Your task to perform on an android device: turn on sleep mode Image 0: 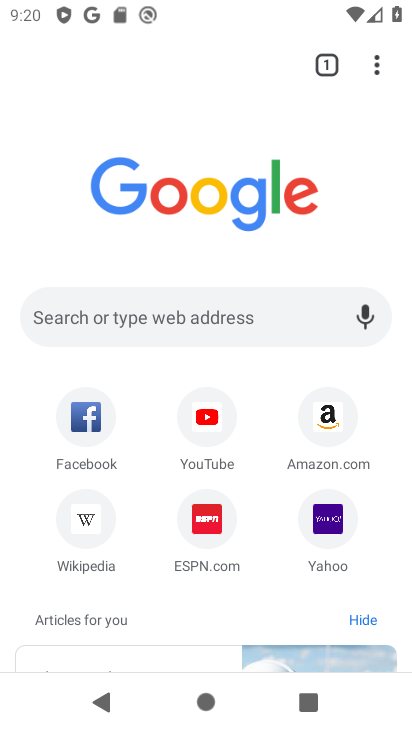
Step 0: press home button
Your task to perform on an android device: turn on sleep mode Image 1: 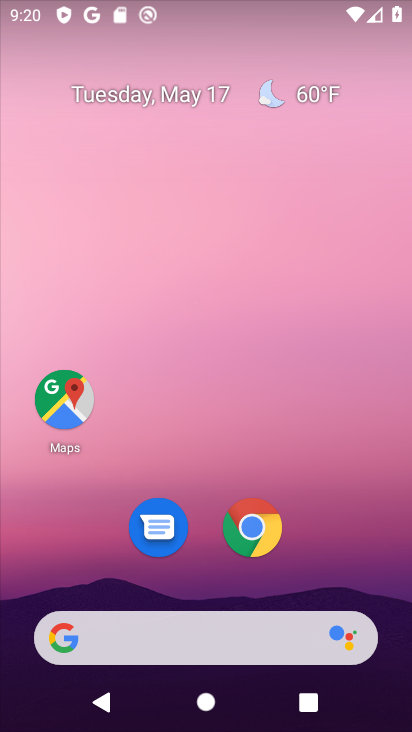
Step 1: drag from (185, 345) to (202, 12)
Your task to perform on an android device: turn on sleep mode Image 2: 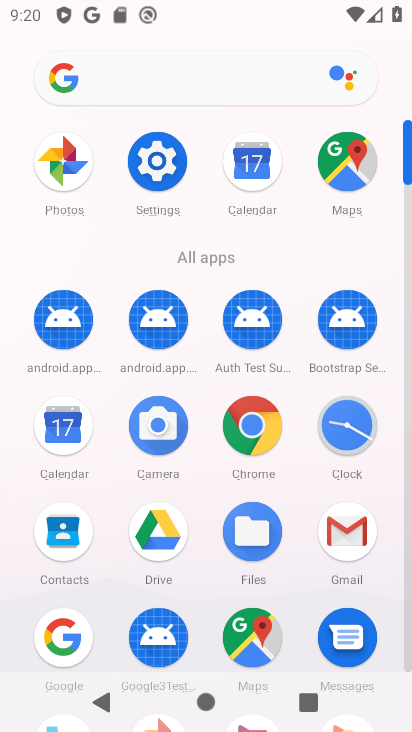
Step 2: click (154, 167)
Your task to perform on an android device: turn on sleep mode Image 3: 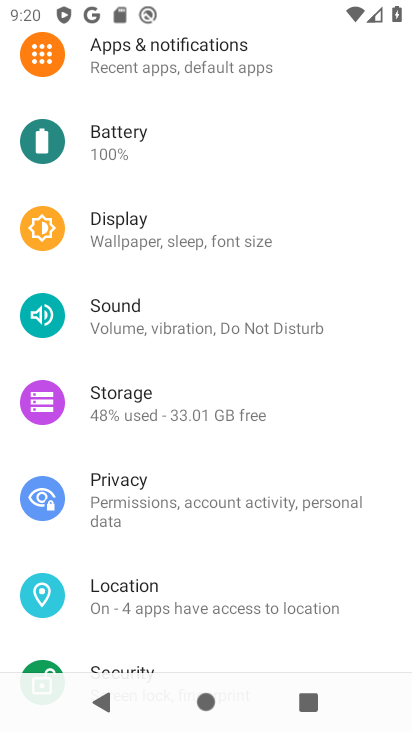
Step 3: click (158, 233)
Your task to perform on an android device: turn on sleep mode Image 4: 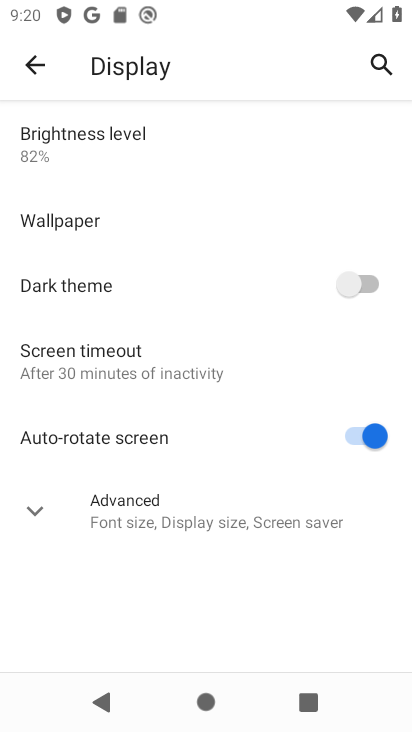
Step 4: task complete